Your task to perform on an android device: Open Wikipedia Image 0: 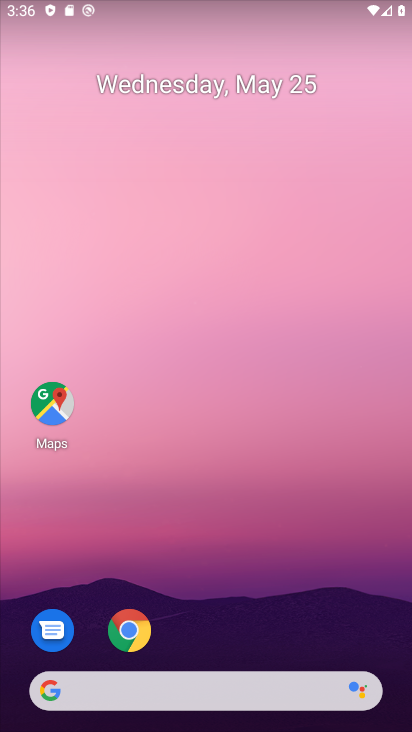
Step 0: click (206, 180)
Your task to perform on an android device: Open Wikipedia Image 1: 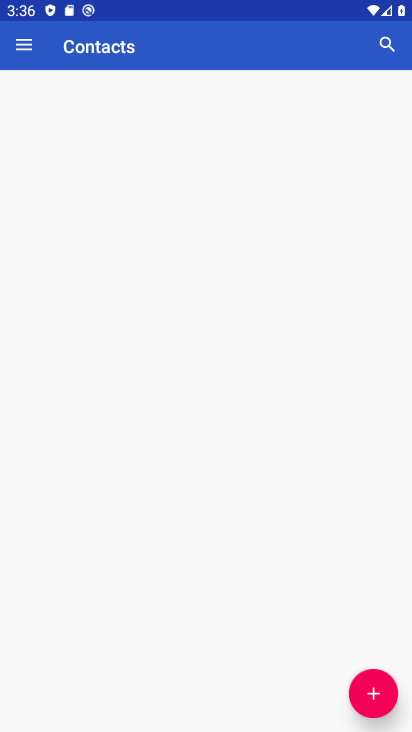
Step 1: drag from (241, 611) to (126, 69)
Your task to perform on an android device: Open Wikipedia Image 2: 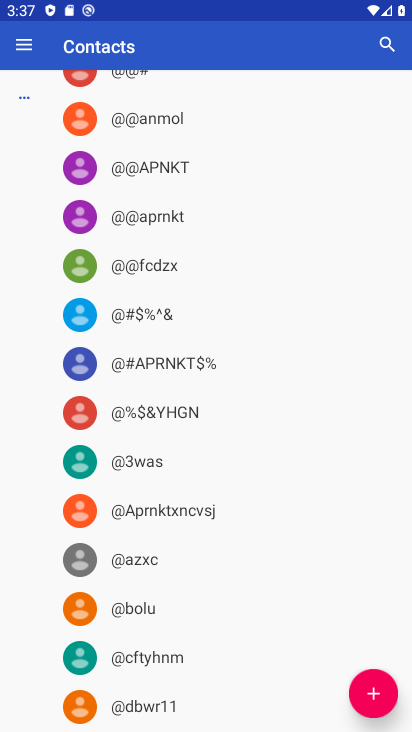
Step 2: press back button
Your task to perform on an android device: Open Wikipedia Image 3: 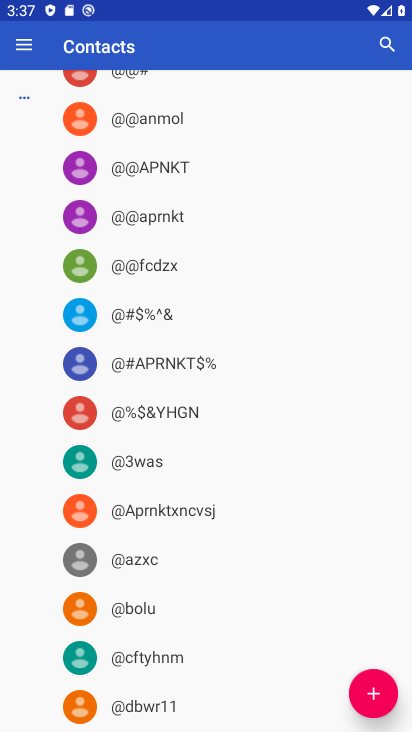
Step 3: press back button
Your task to perform on an android device: Open Wikipedia Image 4: 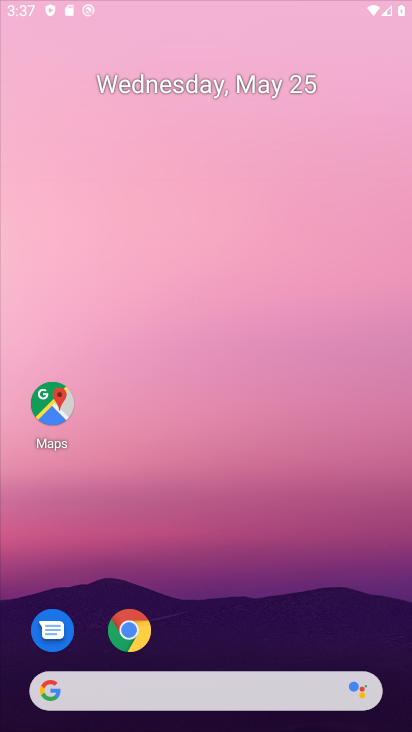
Step 4: press back button
Your task to perform on an android device: Open Wikipedia Image 5: 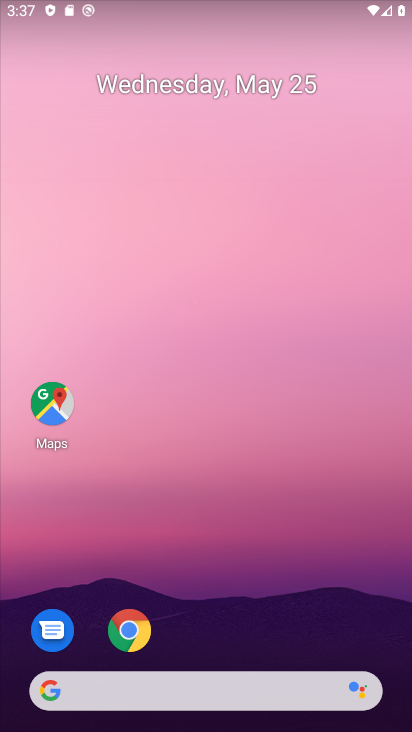
Step 5: press back button
Your task to perform on an android device: Open Wikipedia Image 6: 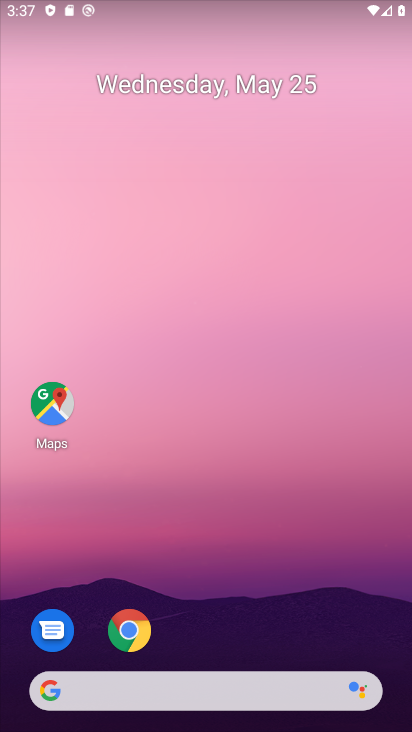
Step 6: click (301, 100)
Your task to perform on an android device: Open Wikipedia Image 7: 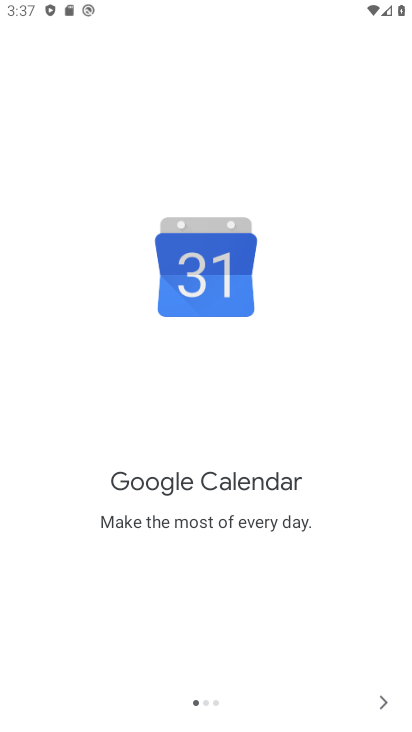
Step 7: click (393, 699)
Your task to perform on an android device: Open Wikipedia Image 8: 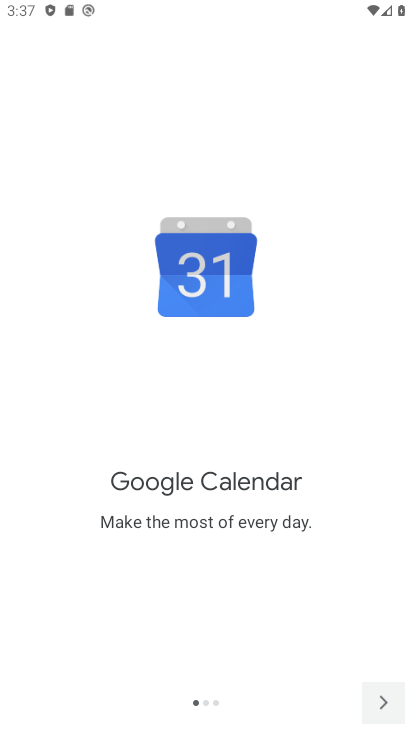
Step 8: click (393, 699)
Your task to perform on an android device: Open Wikipedia Image 9: 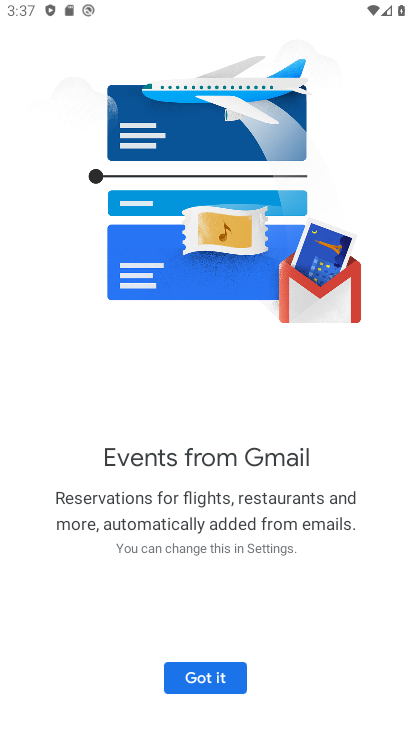
Step 9: click (192, 675)
Your task to perform on an android device: Open Wikipedia Image 10: 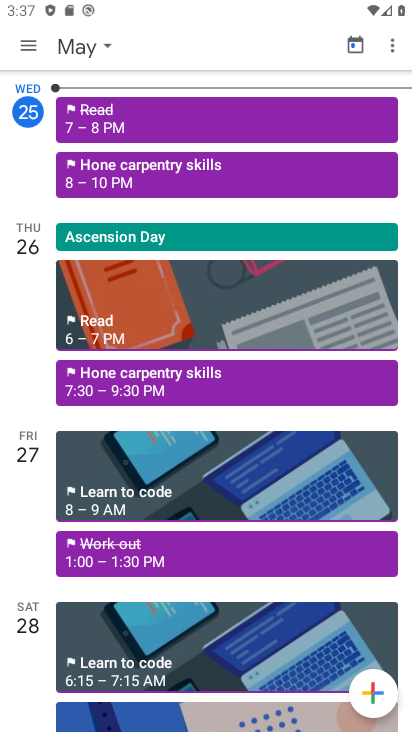
Step 10: press back button
Your task to perform on an android device: Open Wikipedia Image 11: 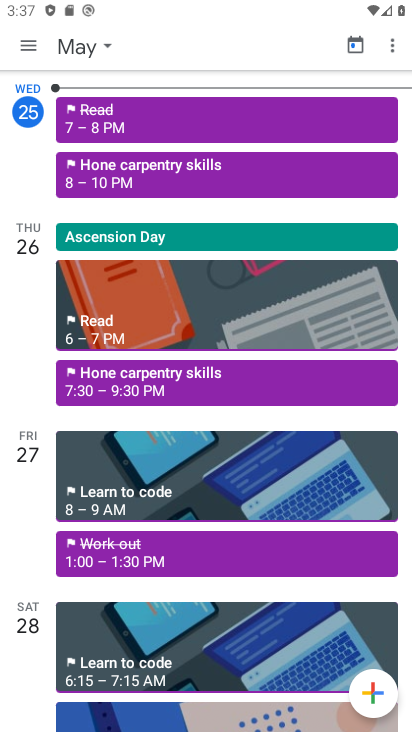
Step 11: press back button
Your task to perform on an android device: Open Wikipedia Image 12: 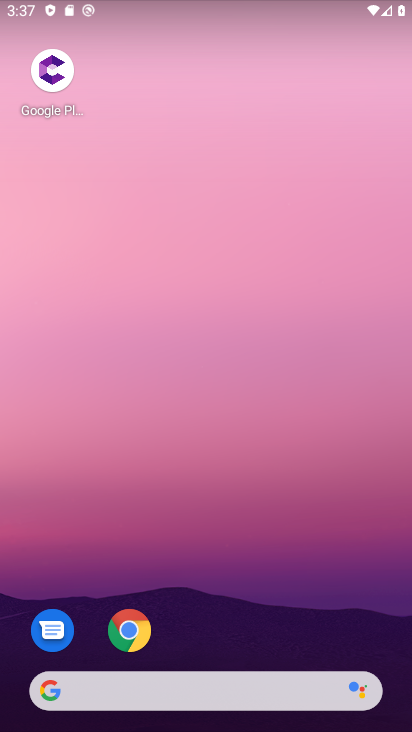
Step 12: click (333, 228)
Your task to perform on an android device: Open Wikipedia Image 13: 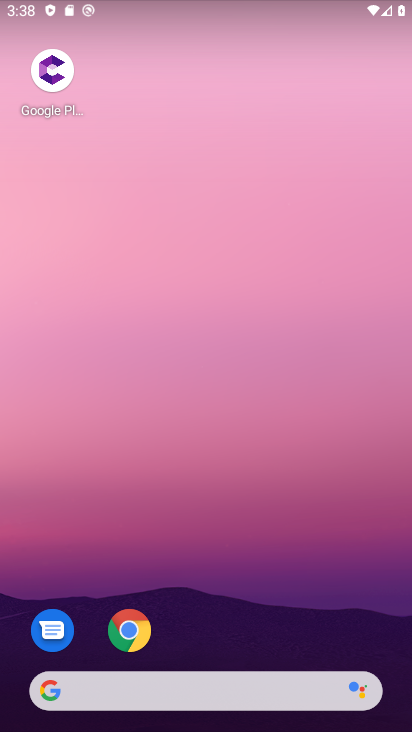
Step 13: drag from (262, 544) to (185, 19)
Your task to perform on an android device: Open Wikipedia Image 14: 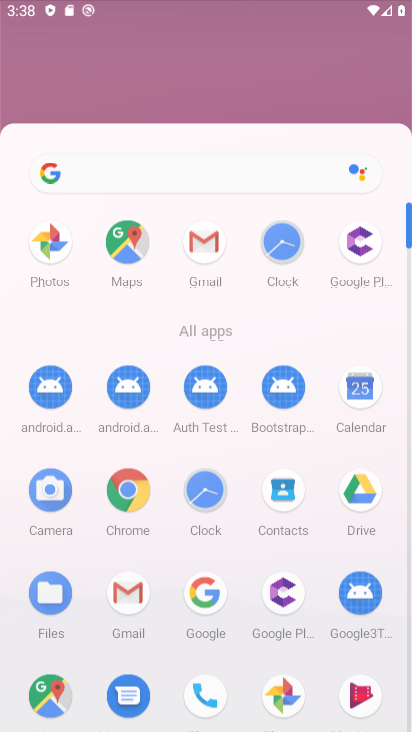
Step 14: drag from (229, 530) to (222, 50)
Your task to perform on an android device: Open Wikipedia Image 15: 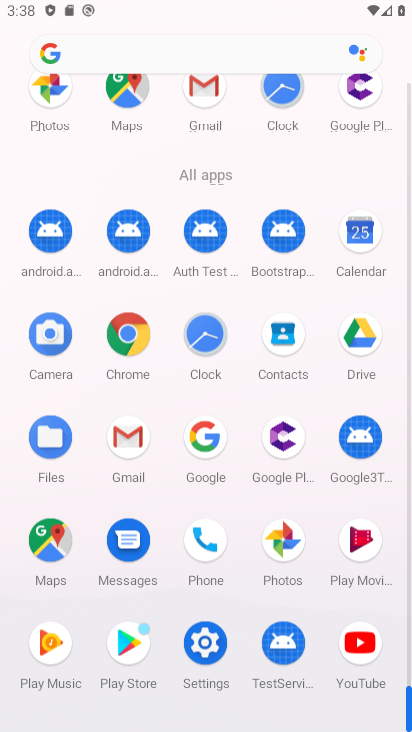
Step 15: drag from (255, 577) to (258, 187)
Your task to perform on an android device: Open Wikipedia Image 16: 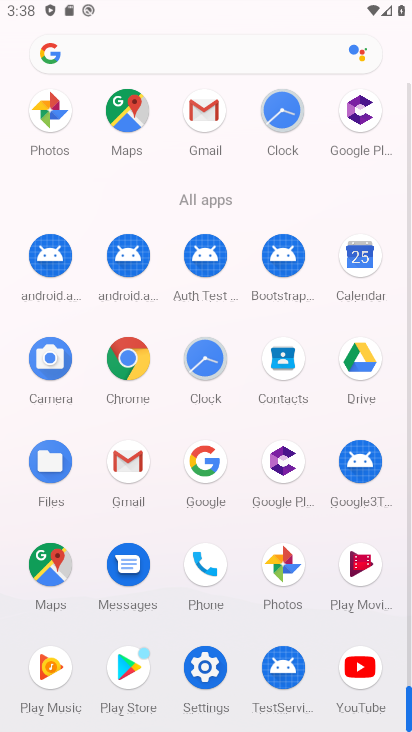
Step 16: click (125, 365)
Your task to perform on an android device: Open Wikipedia Image 17: 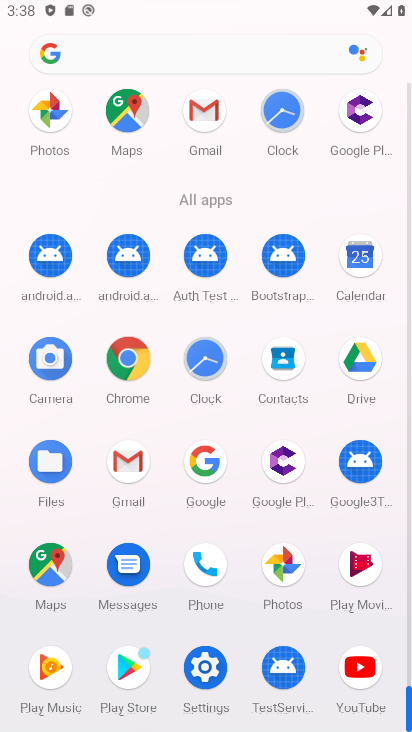
Step 17: click (129, 361)
Your task to perform on an android device: Open Wikipedia Image 18: 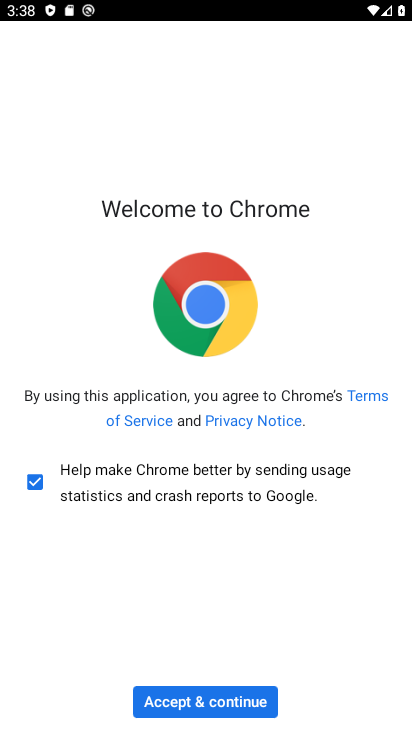
Step 18: click (211, 684)
Your task to perform on an android device: Open Wikipedia Image 19: 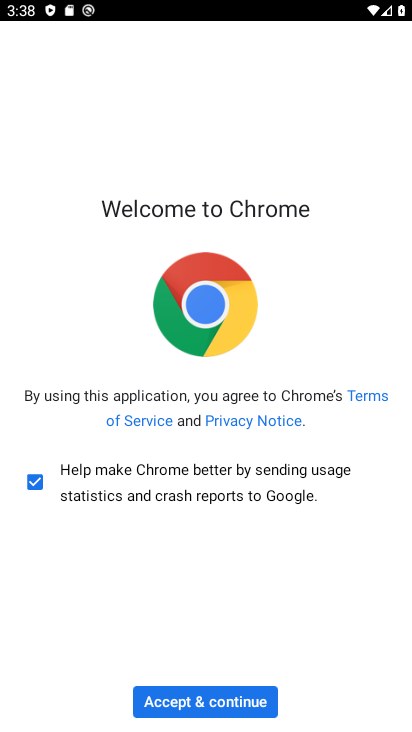
Step 19: click (211, 698)
Your task to perform on an android device: Open Wikipedia Image 20: 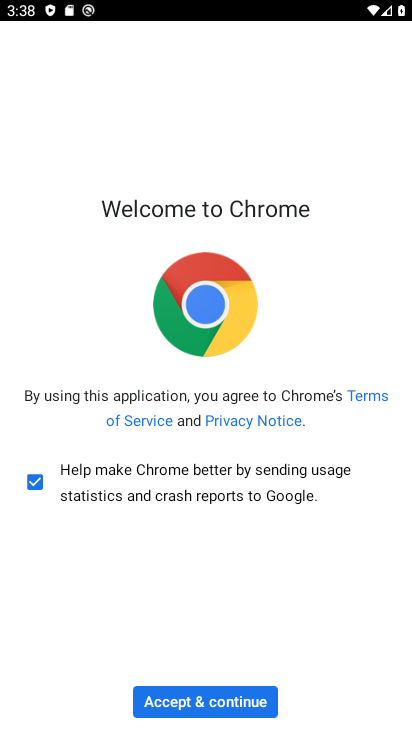
Step 20: click (211, 700)
Your task to perform on an android device: Open Wikipedia Image 21: 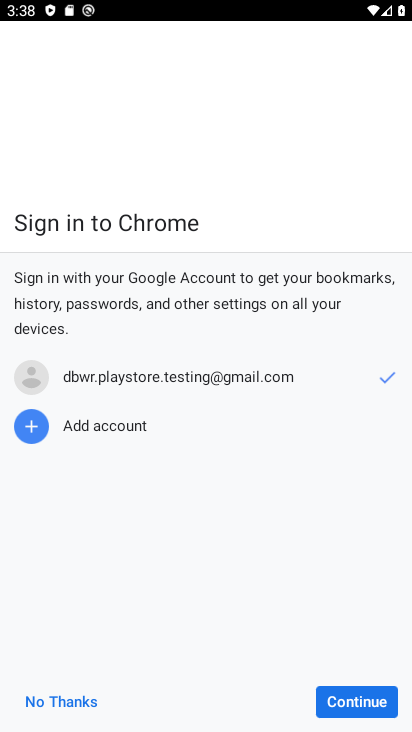
Step 21: click (211, 700)
Your task to perform on an android device: Open Wikipedia Image 22: 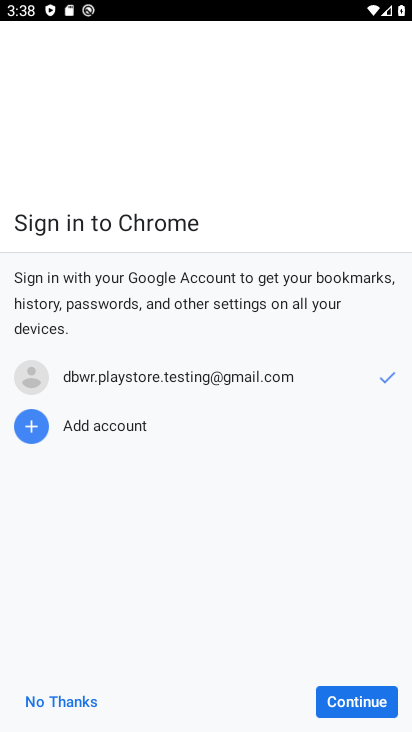
Step 22: click (207, 698)
Your task to perform on an android device: Open Wikipedia Image 23: 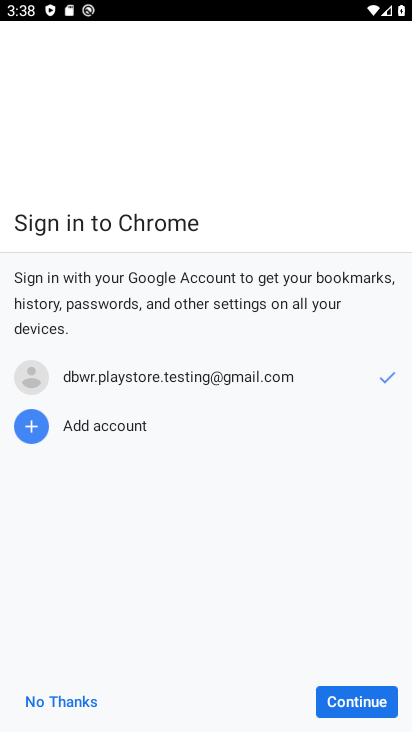
Step 23: click (361, 685)
Your task to perform on an android device: Open Wikipedia Image 24: 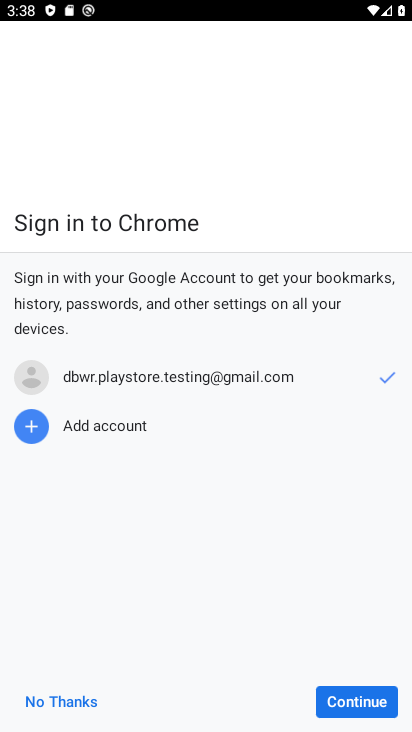
Step 24: click (374, 686)
Your task to perform on an android device: Open Wikipedia Image 25: 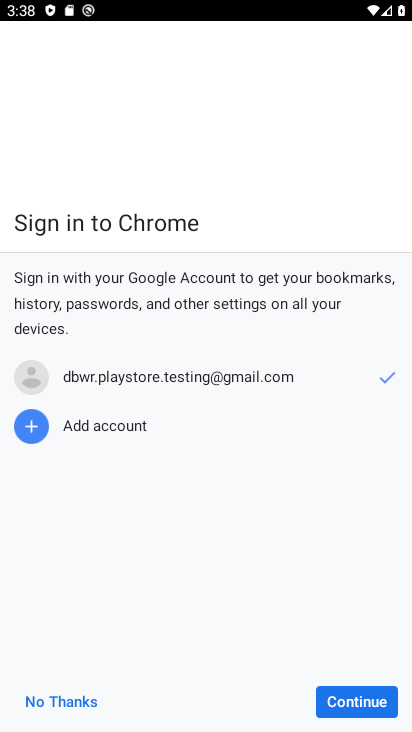
Step 25: click (367, 686)
Your task to perform on an android device: Open Wikipedia Image 26: 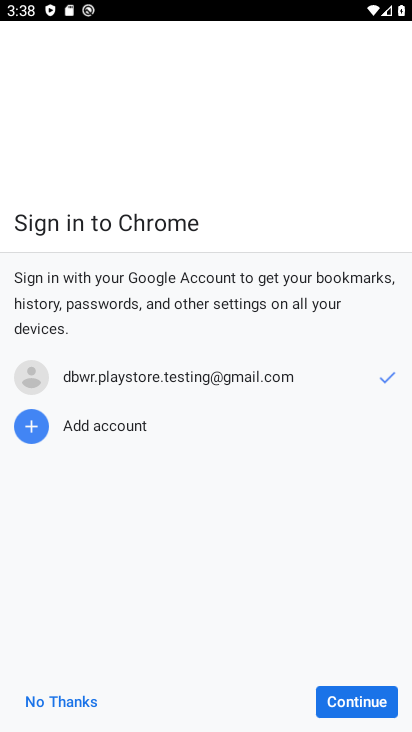
Step 26: click (346, 701)
Your task to perform on an android device: Open Wikipedia Image 27: 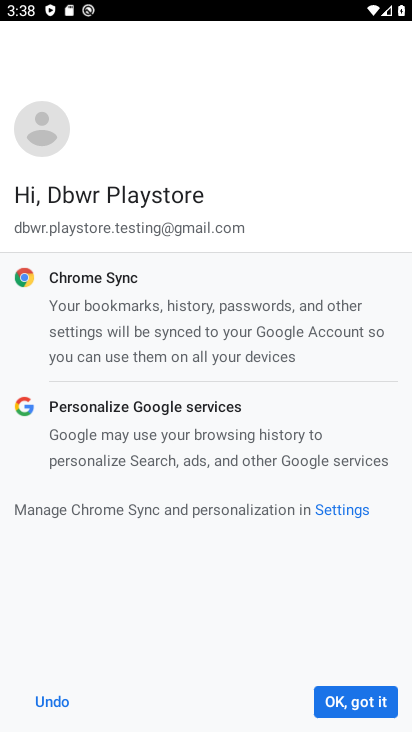
Step 27: click (358, 694)
Your task to perform on an android device: Open Wikipedia Image 28: 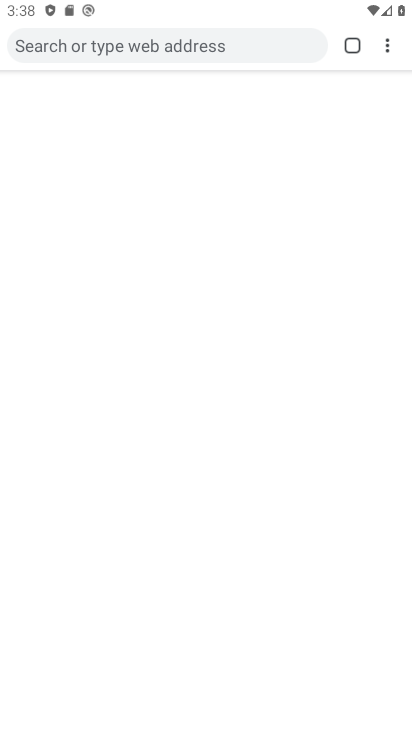
Step 28: task complete